Your task to perform on an android device: find which apps use the phone's location Image 0: 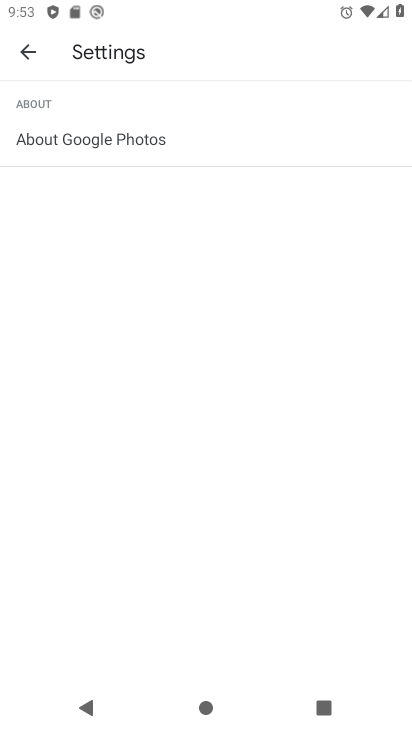
Step 0: press back button
Your task to perform on an android device: find which apps use the phone's location Image 1: 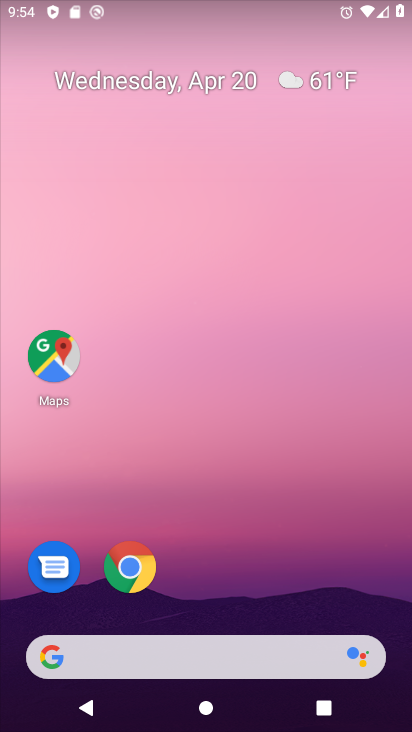
Step 1: drag from (210, 534) to (220, 79)
Your task to perform on an android device: find which apps use the phone's location Image 2: 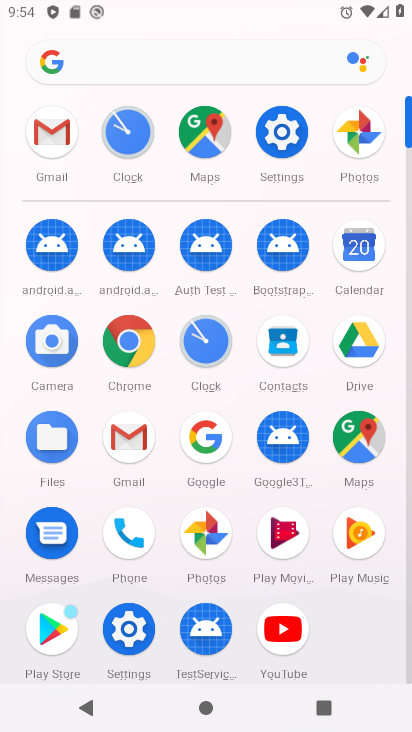
Step 2: click (266, 124)
Your task to perform on an android device: find which apps use the phone's location Image 3: 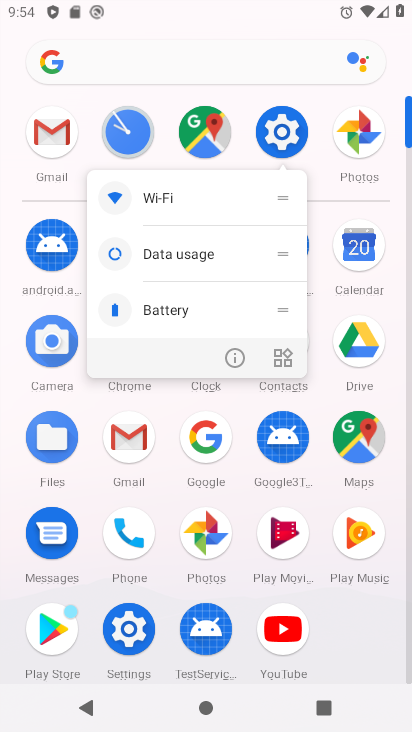
Step 3: click (284, 124)
Your task to perform on an android device: find which apps use the phone's location Image 4: 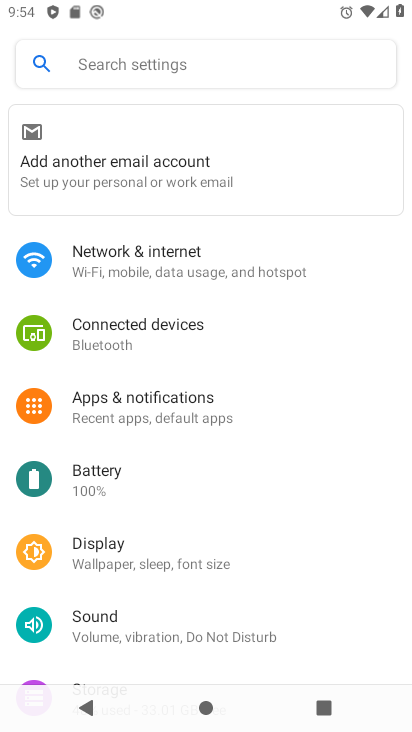
Step 4: drag from (148, 576) to (250, 161)
Your task to perform on an android device: find which apps use the phone's location Image 5: 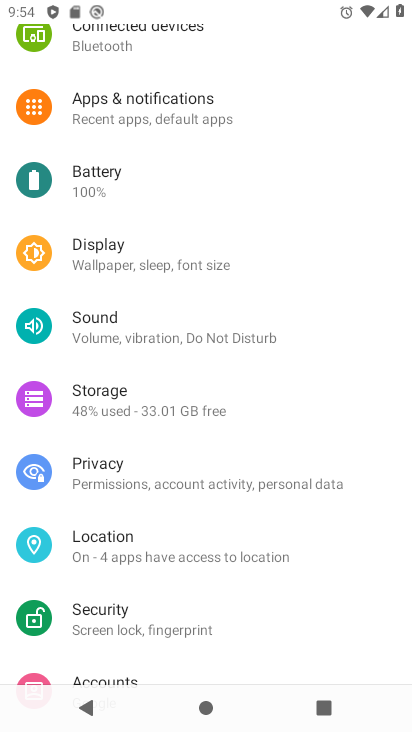
Step 5: click (177, 561)
Your task to perform on an android device: find which apps use the phone's location Image 6: 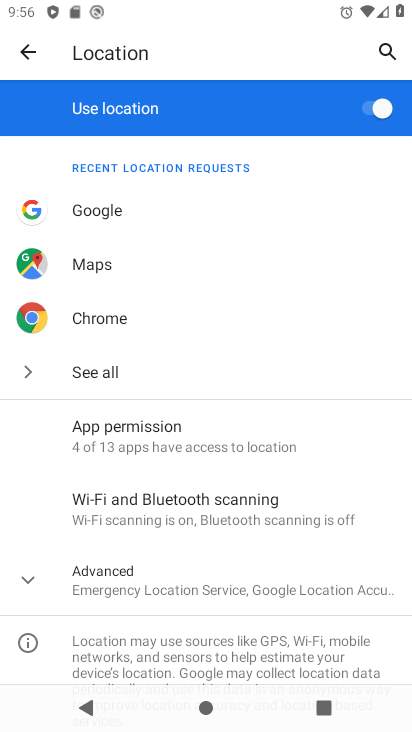
Step 6: click (185, 427)
Your task to perform on an android device: find which apps use the phone's location Image 7: 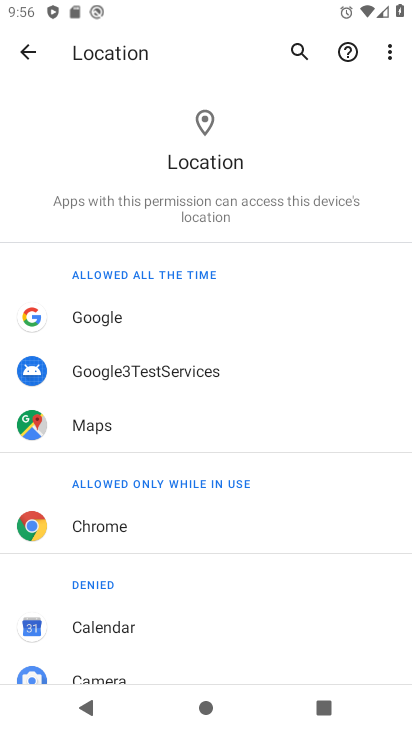
Step 7: task complete